Your task to perform on an android device: find which apps use the phone's location Image 0: 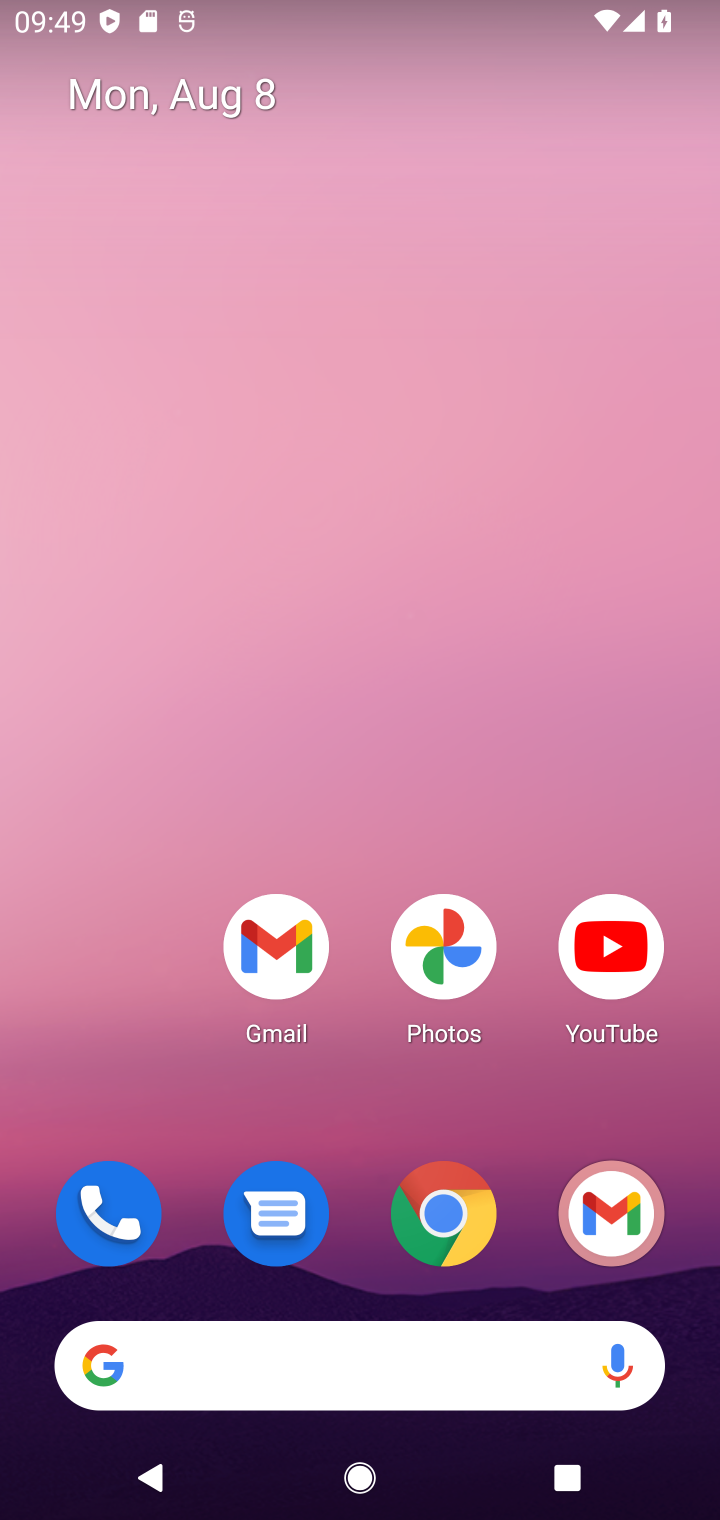
Step 0: drag from (359, 1097) to (344, 381)
Your task to perform on an android device: find which apps use the phone's location Image 1: 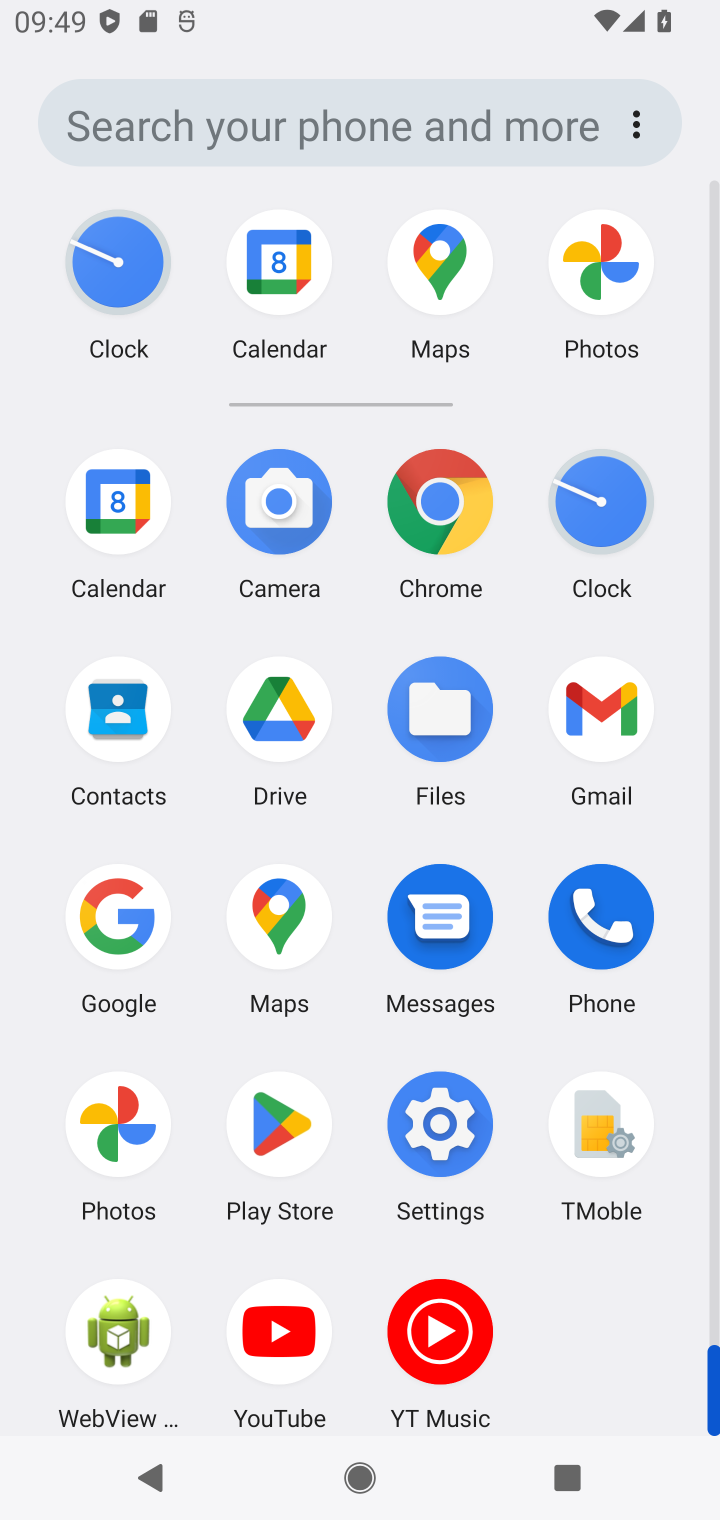
Step 1: click (450, 1118)
Your task to perform on an android device: find which apps use the phone's location Image 2: 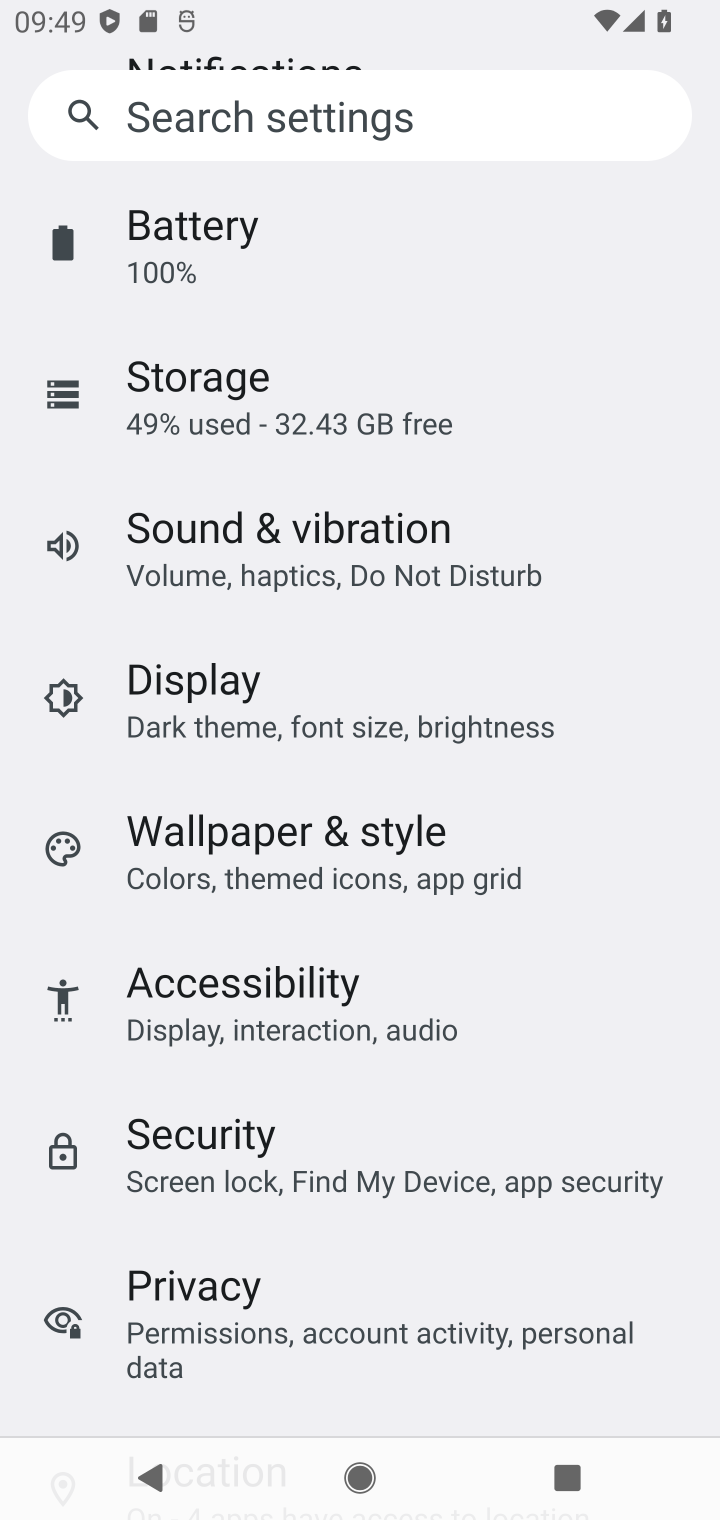
Step 2: drag from (424, 1028) to (386, 303)
Your task to perform on an android device: find which apps use the phone's location Image 3: 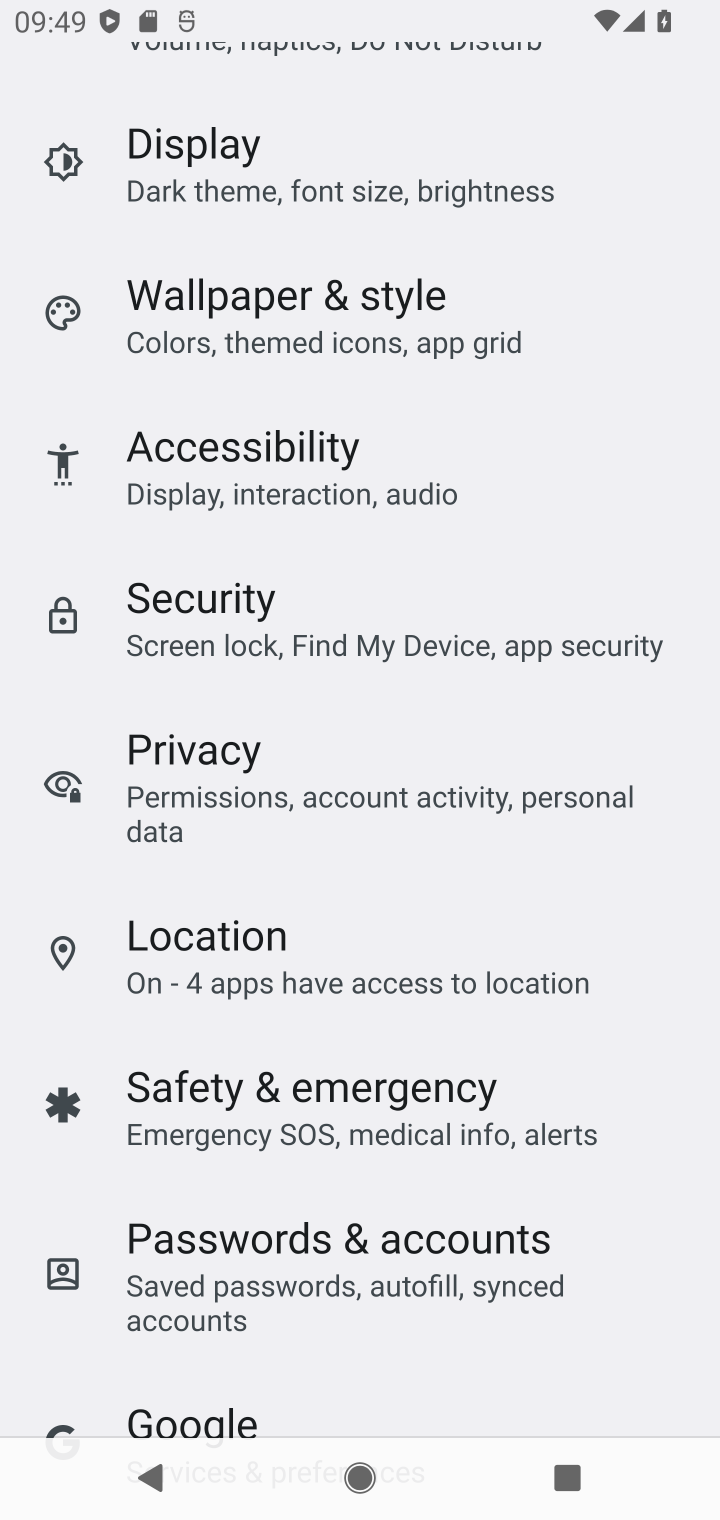
Step 3: click (339, 971)
Your task to perform on an android device: find which apps use the phone's location Image 4: 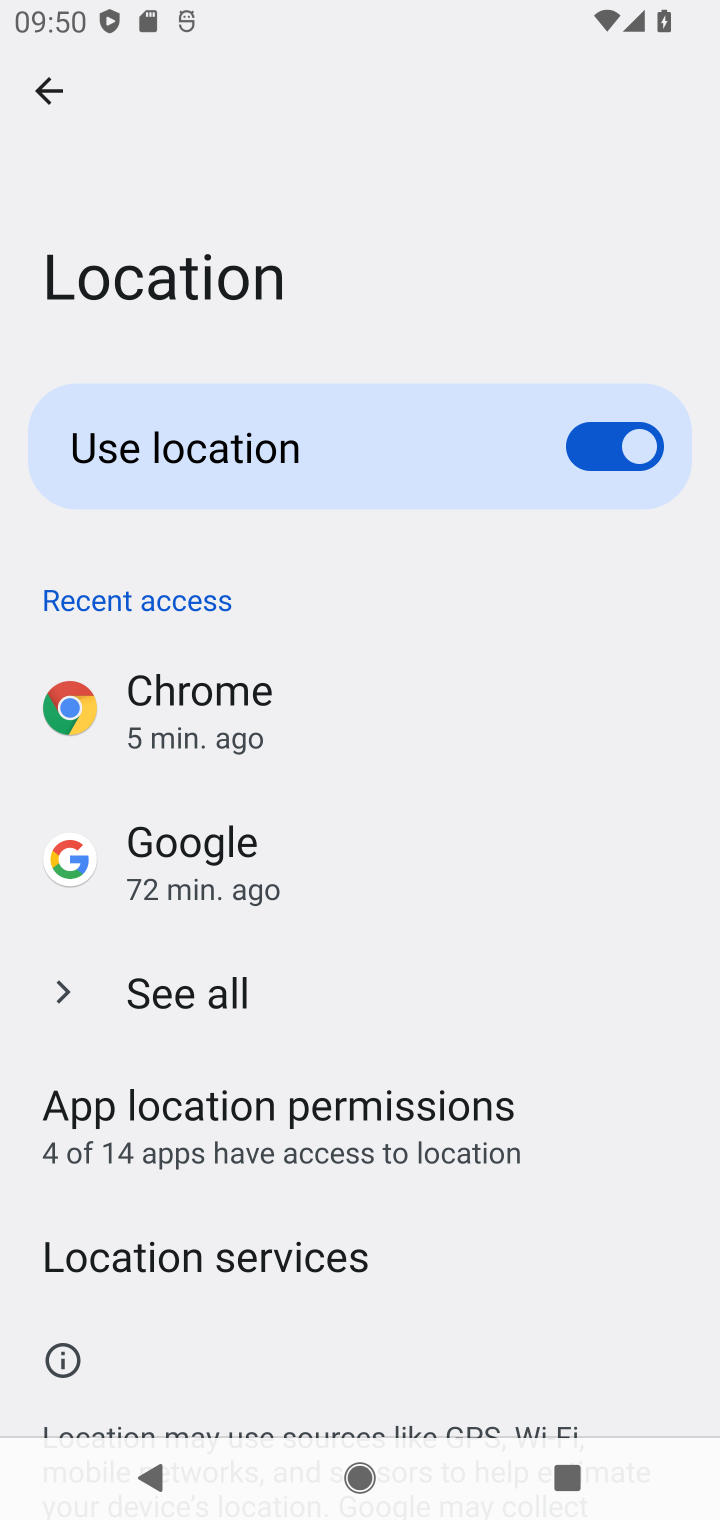
Step 4: drag from (291, 1150) to (325, 552)
Your task to perform on an android device: find which apps use the phone's location Image 5: 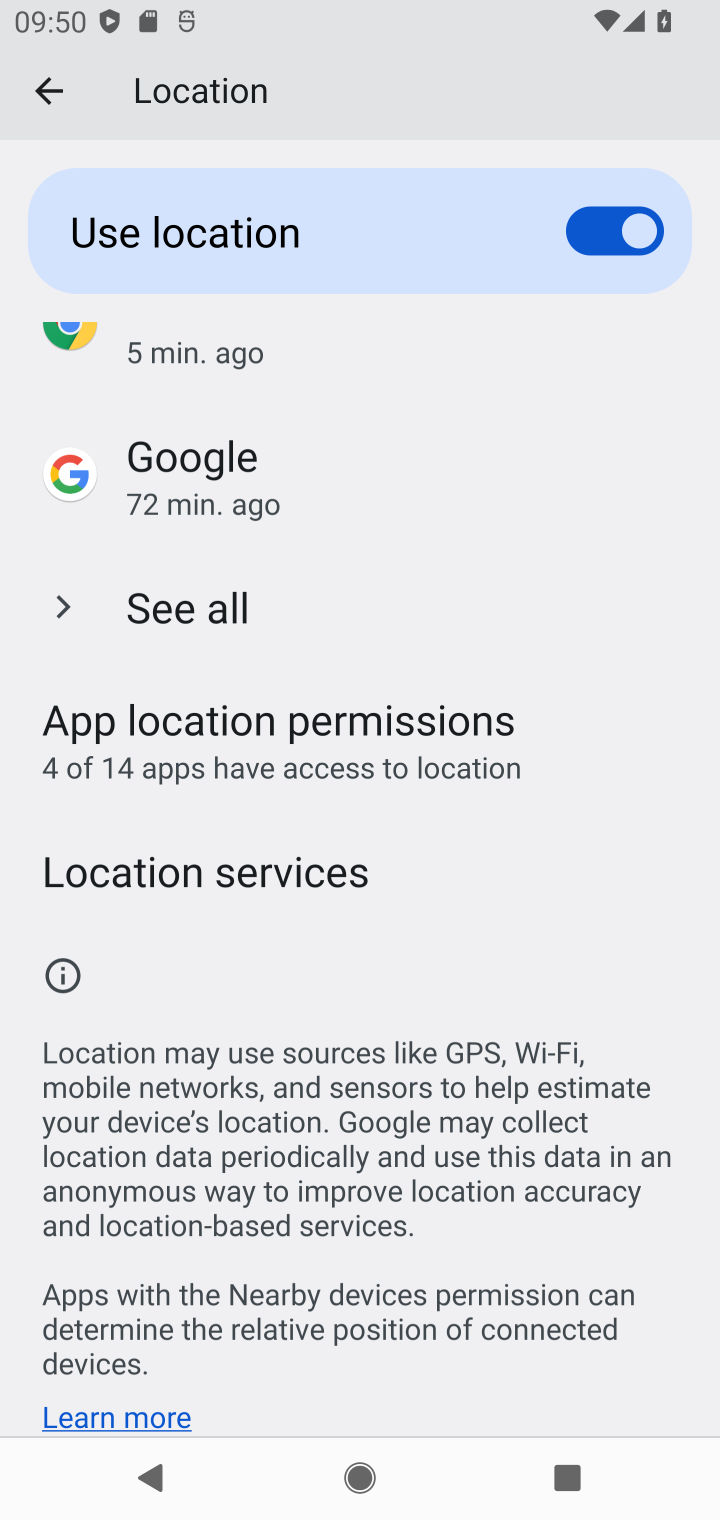
Step 5: click (313, 754)
Your task to perform on an android device: find which apps use the phone's location Image 6: 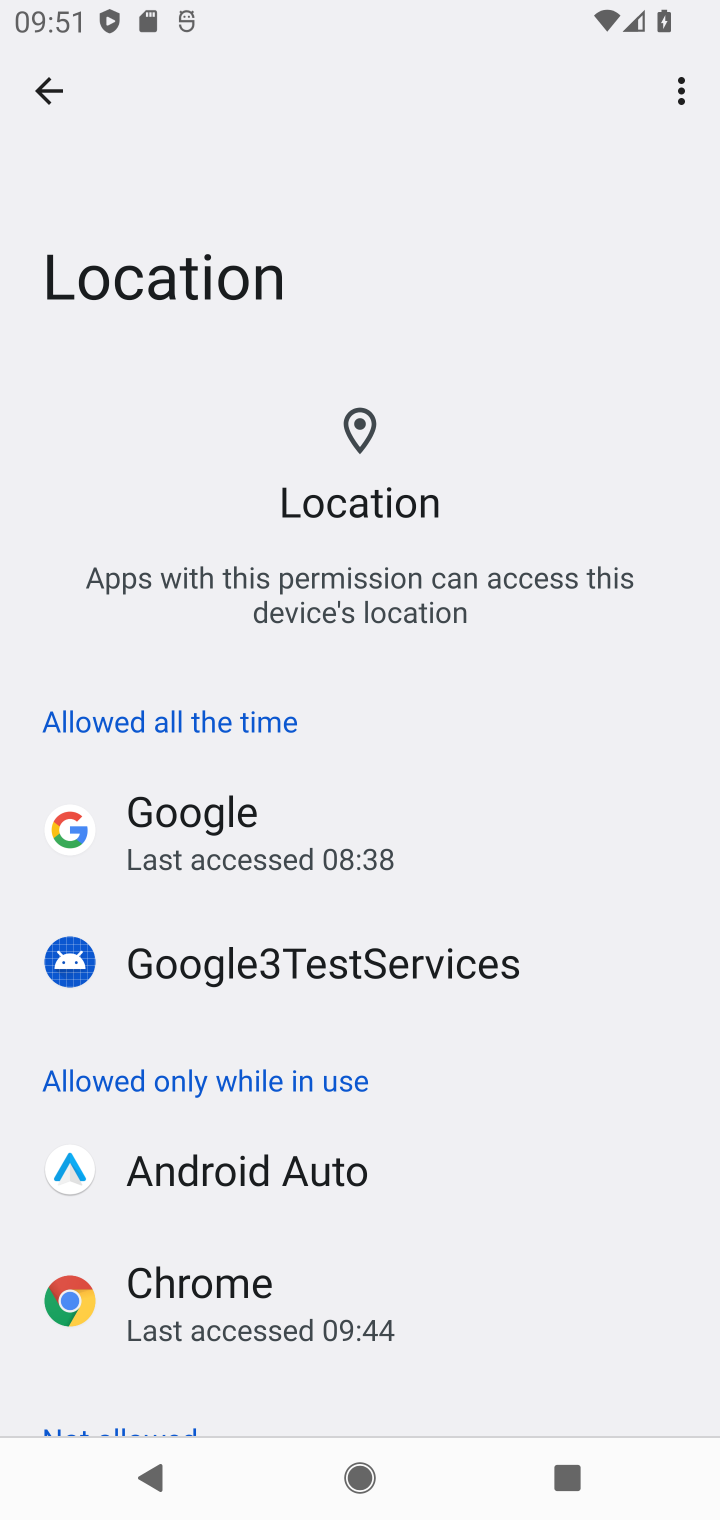
Step 6: task complete